Your task to perform on an android device: check android version Image 0: 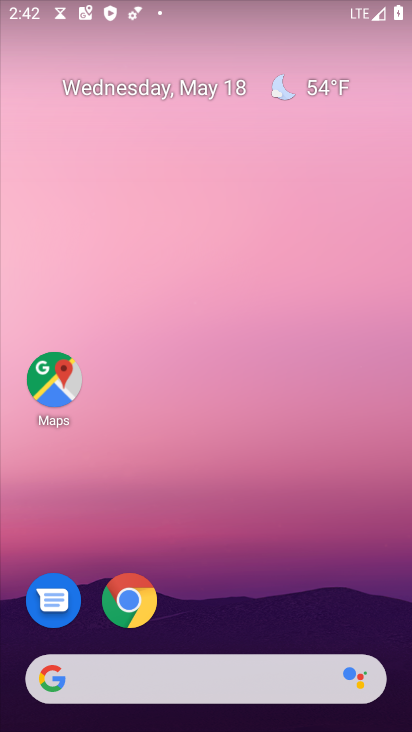
Step 0: press home button
Your task to perform on an android device: check android version Image 1: 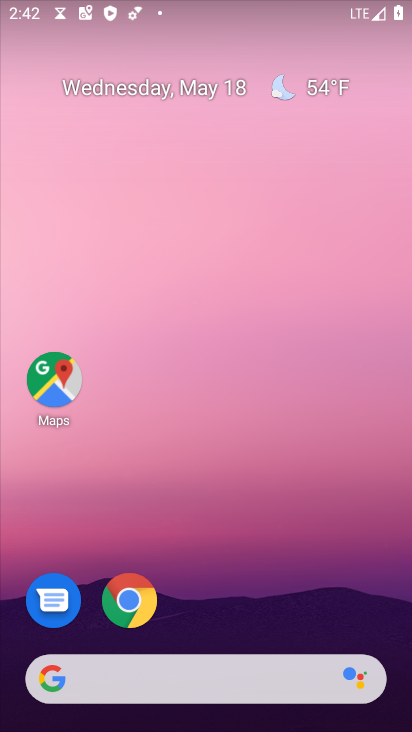
Step 1: drag from (180, 672) to (326, 15)
Your task to perform on an android device: check android version Image 2: 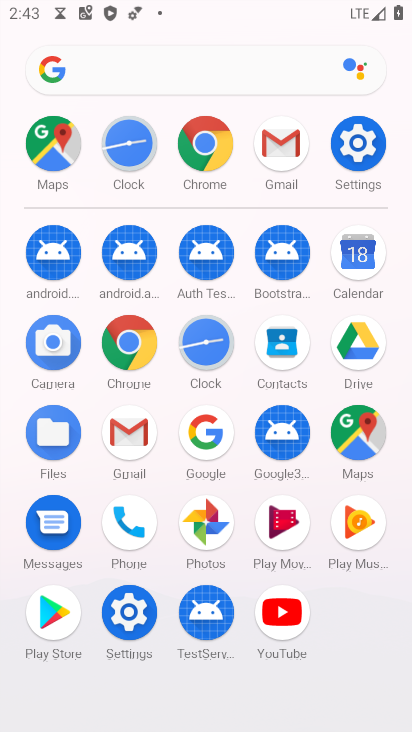
Step 2: click (356, 139)
Your task to perform on an android device: check android version Image 3: 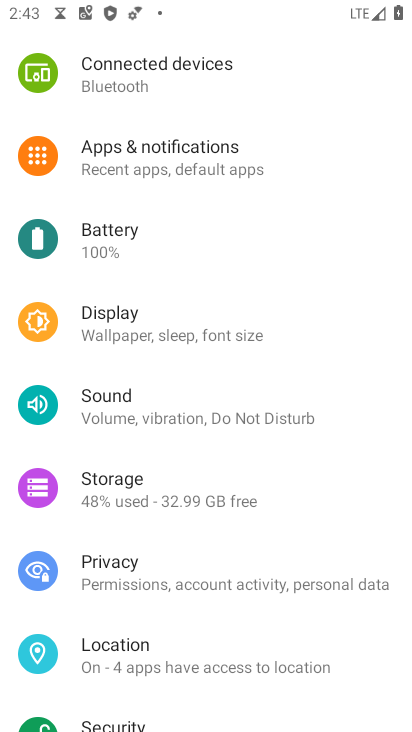
Step 3: drag from (222, 623) to (336, 111)
Your task to perform on an android device: check android version Image 4: 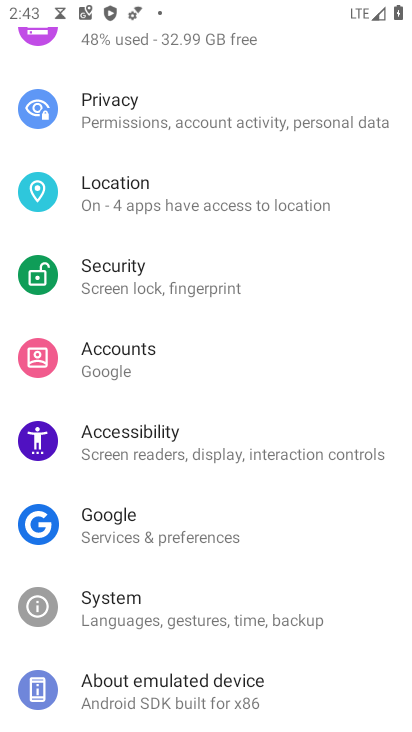
Step 4: drag from (265, 574) to (369, 67)
Your task to perform on an android device: check android version Image 5: 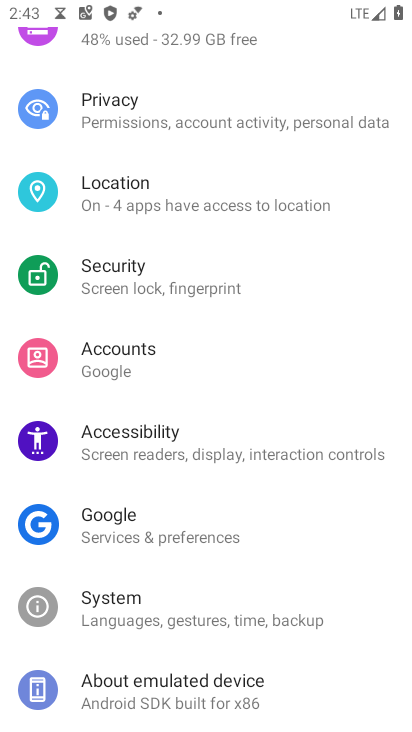
Step 5: click (186, 686)
Your task to perform on an android device: check android version Image 6: 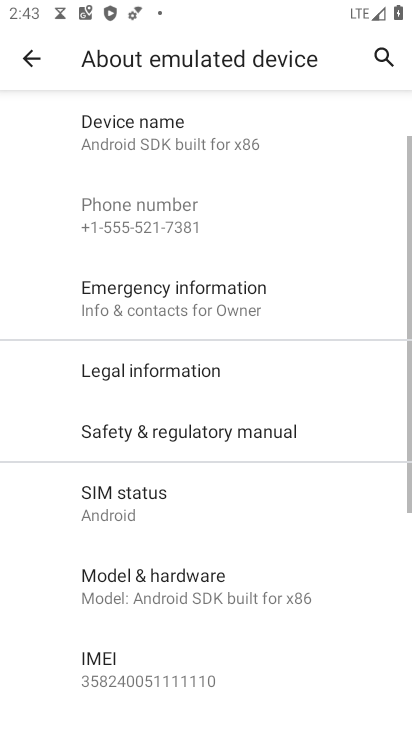
Step 6: drag from (240, 572) to (302, 148)
Your task to perform on an android device: check android version Image 7: 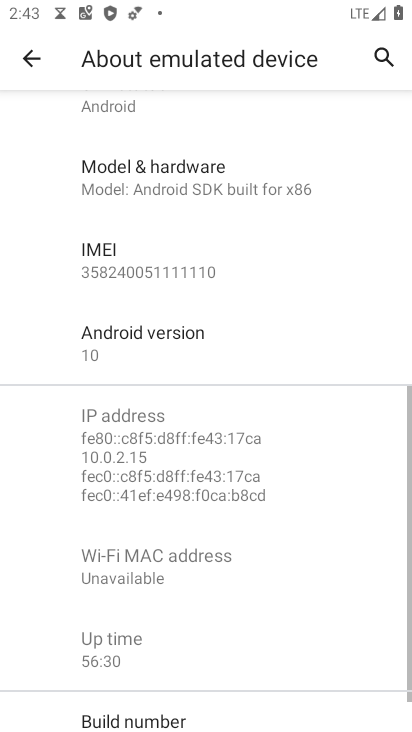
Step 7: click (159, 334)
Your task to perform on an android device: check android version Image 8: 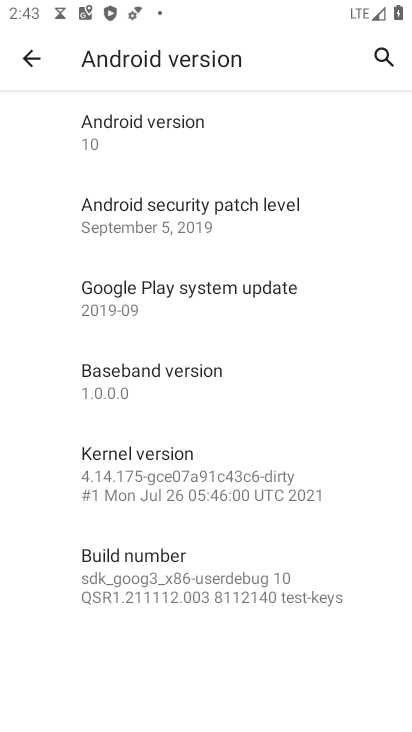
Step 8: task complete